Your task to perform on an android device: choose inbox layout in the gmail app Image 0: 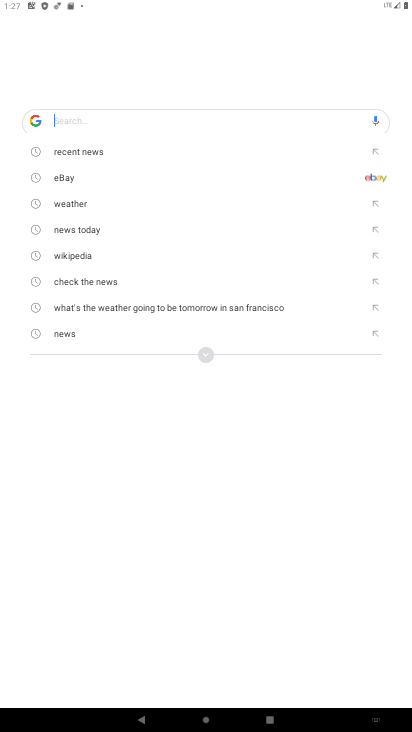
Step 0: press home button
Your task to perform on an android device: choose inbox layout in the gmail app Image 1: 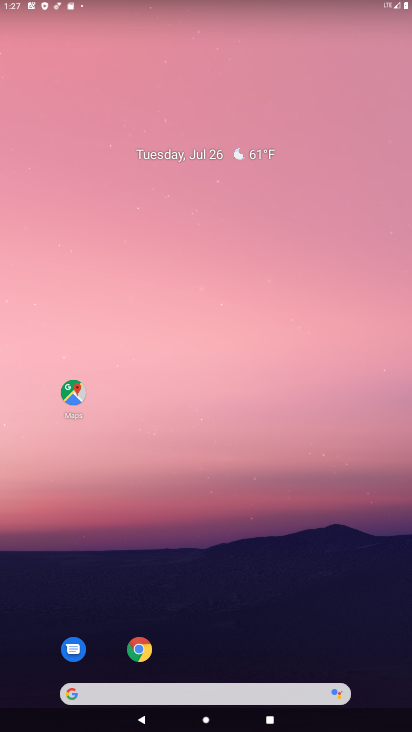
Step 1: drag from (214, 603) to (178, 70)
Your task to perform on an android device: choose inbox layout in the gmail app Image 2: 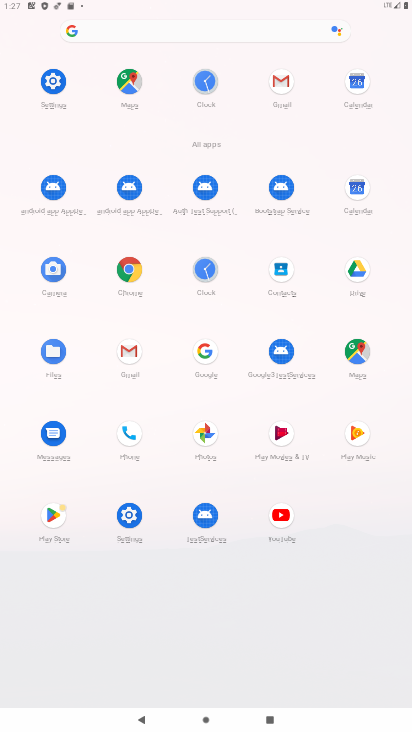
Step 2: click (285, 95)
Your task to perform on an android device: choose inbox layout in the gmail app Image 3: 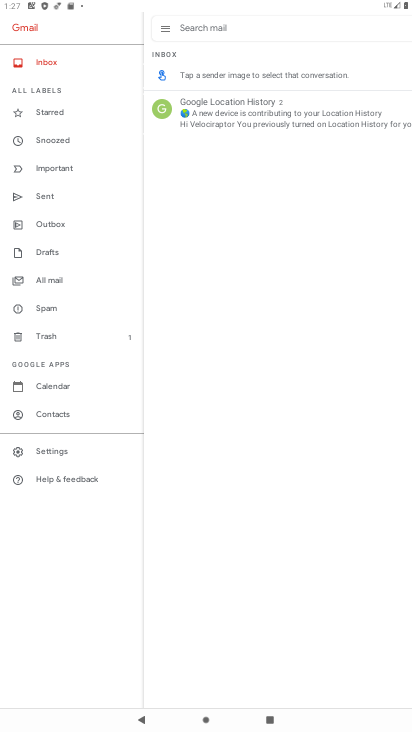
Step 3: click (51, 450)
Your task to perform on an android device: choose inbox layout in the gmail app Image 4: 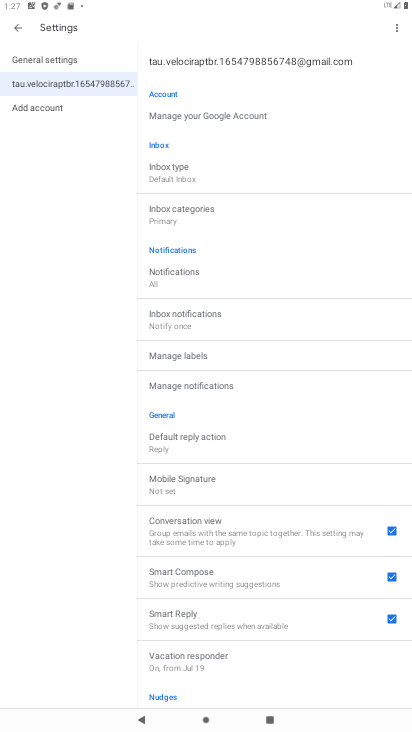
Step 4: click (176, 176)
Your task to perform on an android device: choose inbox layout in the gmail app Image 5: 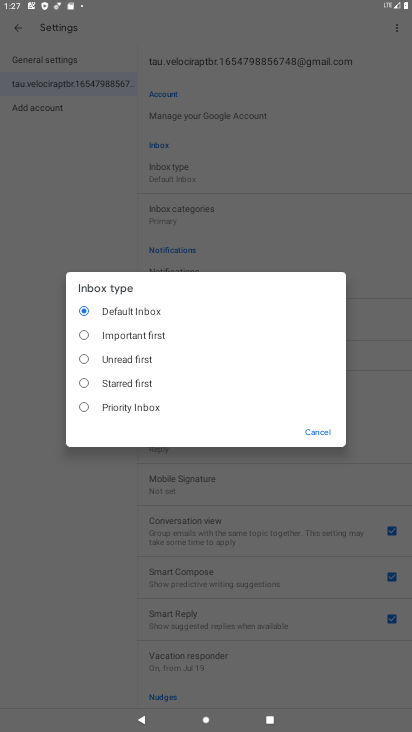
Step 5: click (80, 410)
Your task to perform on an android device: choose inbox layout in the gmail app Image 6: 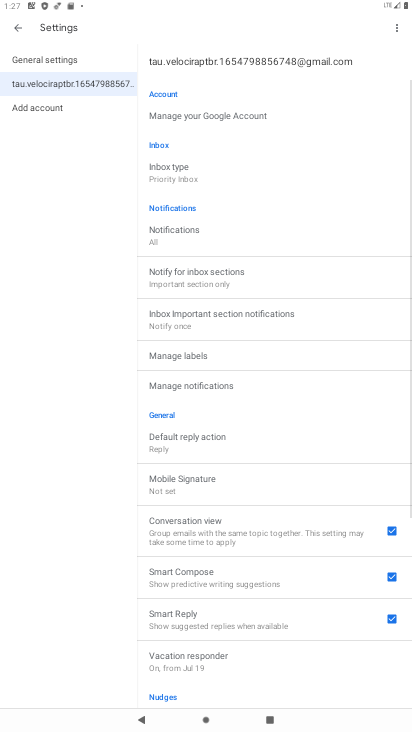
Step 6: task complete